Your task to perform on an android device: Play the last video I watched on Youtube Image 0: 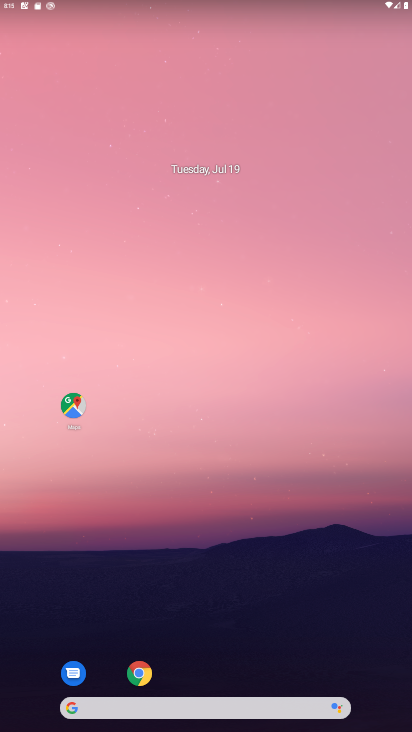
Step 0: drag from (302, 710) to (223, 280)
Your task to perform on an android device: Play the last video I watched on Youtube Image 1: 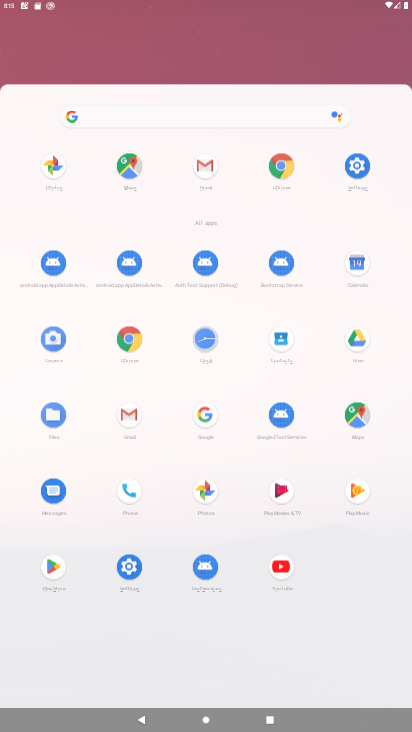
Step 1: click (215, 201)
Your task to perform on an android device: Play the last video I watched on Youtube Image 2: 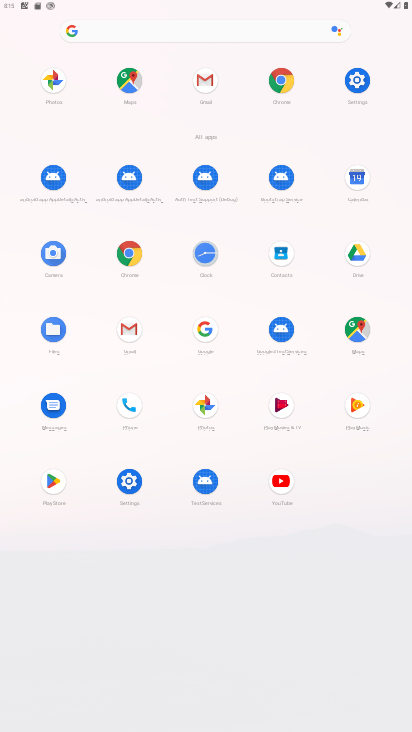
Step 2: click (285, 487)
Your task to perform on an android device: Play the last video I watched on Youtube Image 3: 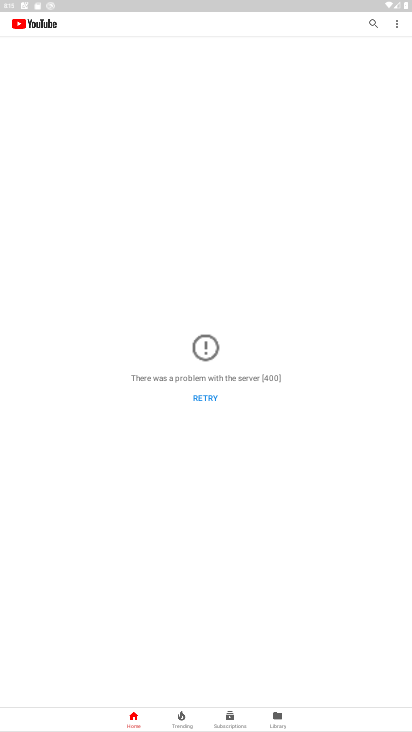
Step 3: click (195, 389)
Your task to perform on an android device: Play the last video I watched on Youtube Image 4: 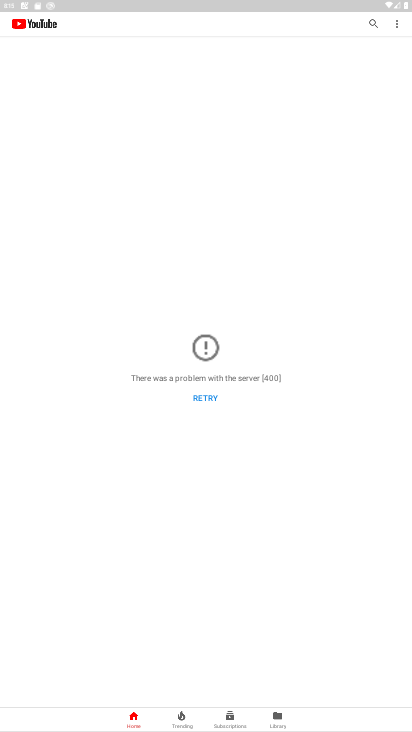
Step 4: click (215, 399)
Your task to perform on an android device: Play the last video I watched on Youtube Image 5: 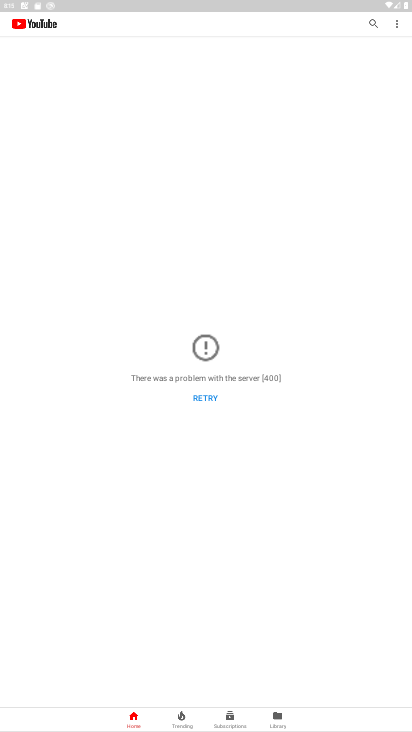
Step 5: task complete